Your task to perform on an android device: Go to Reddit.com Image 0: 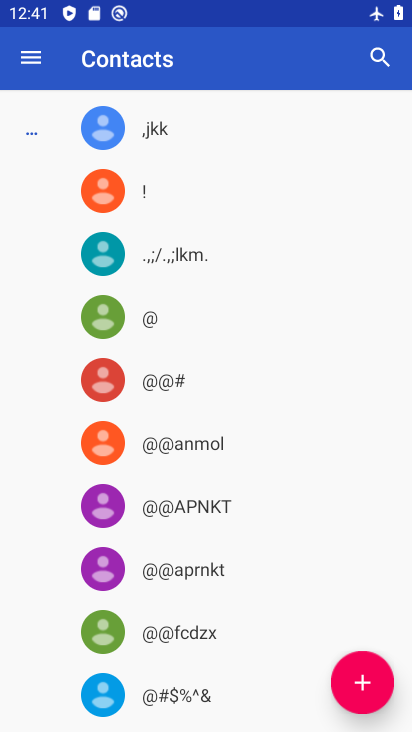
Step 0: press home button
Your task to perform on an android device: Go to Reddit.com Image 1: 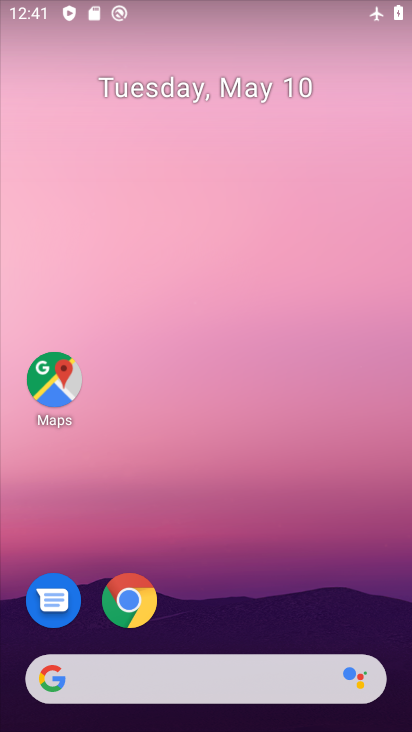
Step 1: drag from (249, 624) to (326, 335)
Your task to perform on an android device: Go to Reddit.com Image 2: 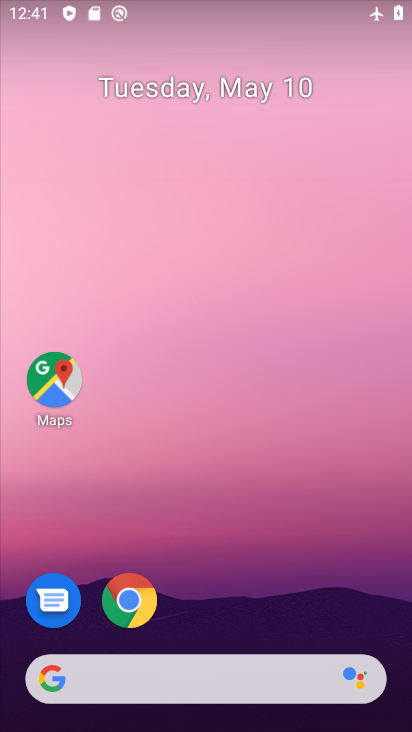
Step 2: click (145, 602)
Your task to perform on an android device: Go to Reddit.com Image 3: 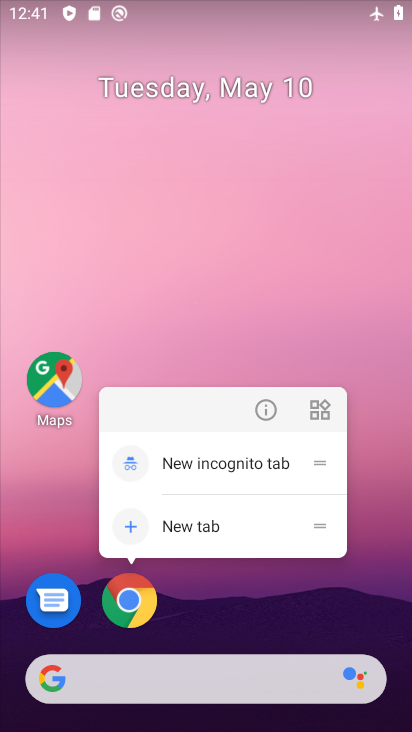
Step 3: click (112, 613)
Your task to perform on an android device: Go to Reddit.com Image 4: 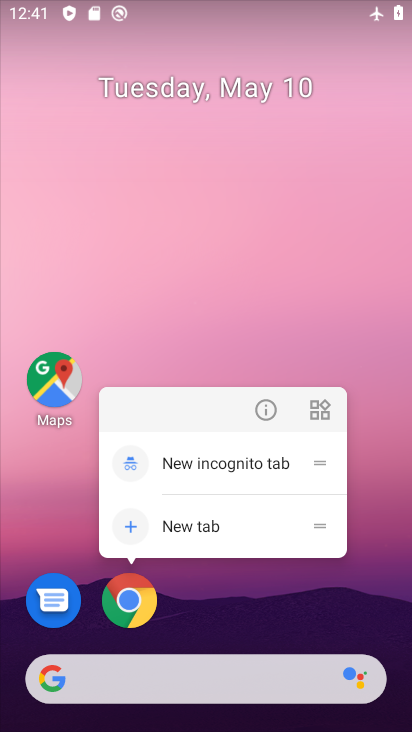
Step 4: click (112, 614)
Your task to perform on an android device: Go to Reddit.com Image 5: 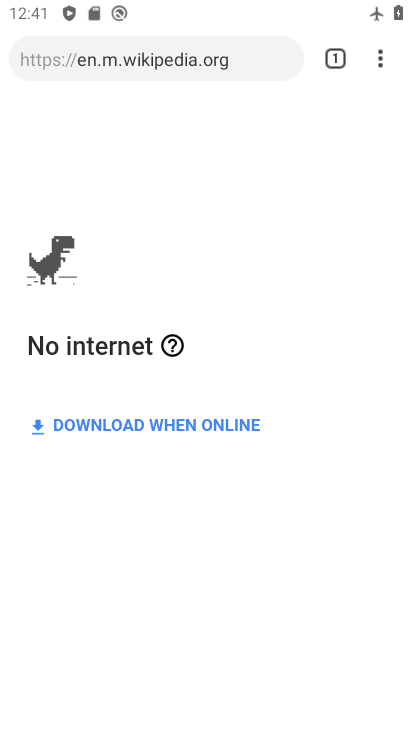
Step 5: click (162, 49)
Your task to perform on an android device: Go to Reddit.com Image 6: 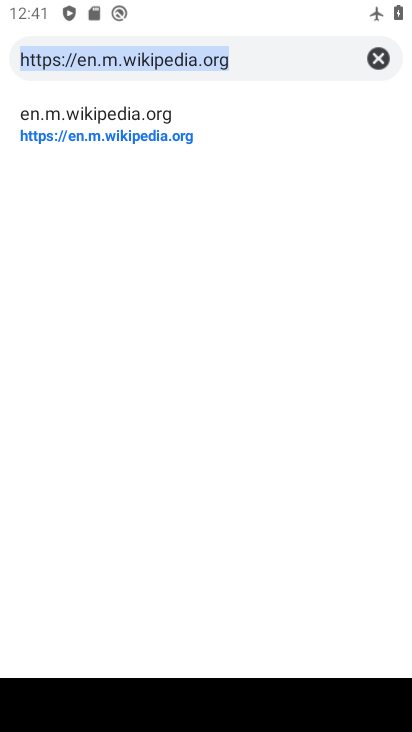
Step 6: type "reddit"
Your task to perform on an android device: Go to Reddit.com Image 7: 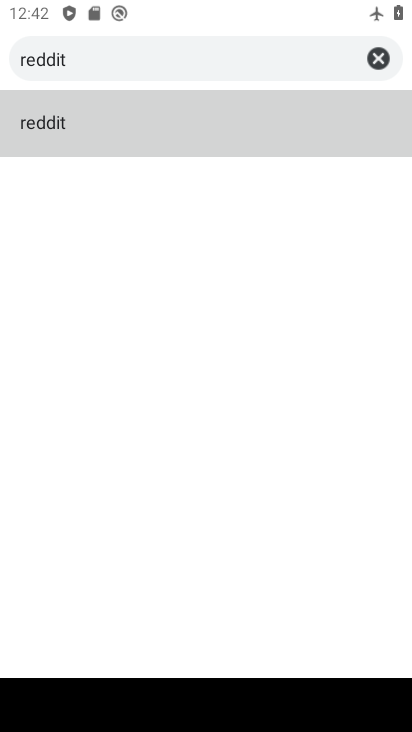
Step 7: click (105, 126)
Your task to perform on an android device: Go to Reddit.com Image 8: 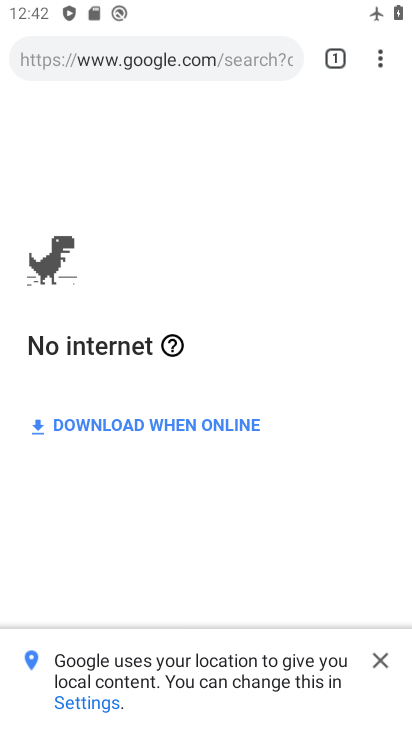
Step 8: task complete